Your task to perform on an android device: Open settings Image 0: 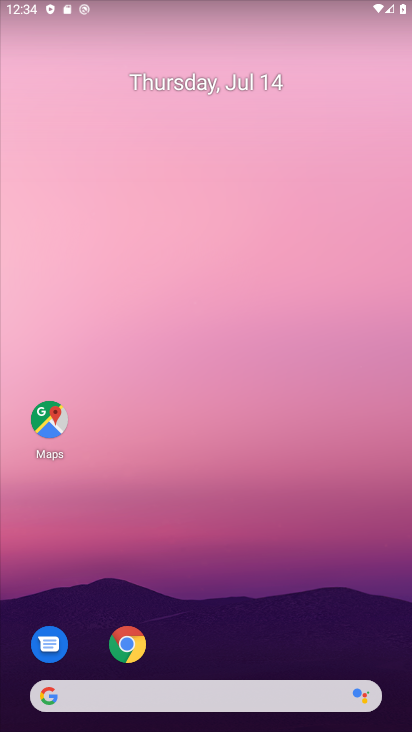
Step 0: drag from (238, 260) to (212, 14)
Your task to perform on an android device: Open settings Image 1: 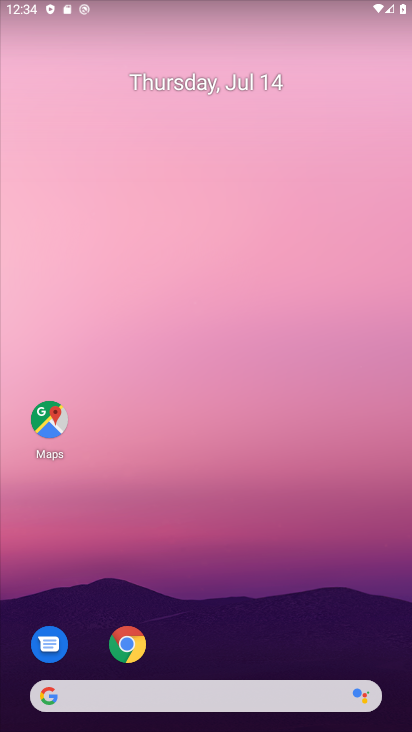
Step 1: drag from (351, 534) to (256, 194)
Your task to perform on an android device: Open settings Image 2: 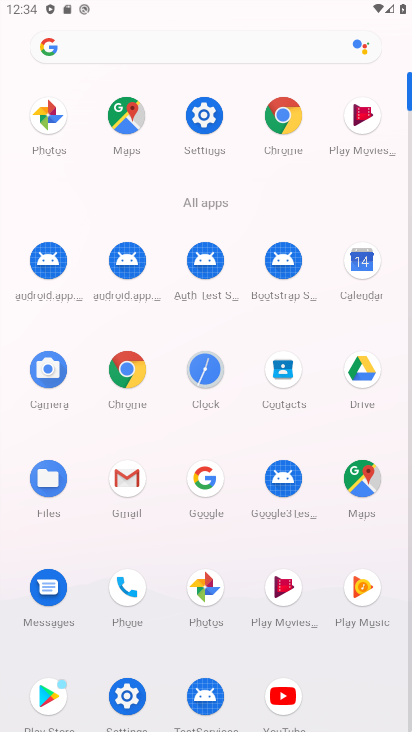
Step 2: click (214, 122)
Your task to perform on an android device: Open settings Image 3: 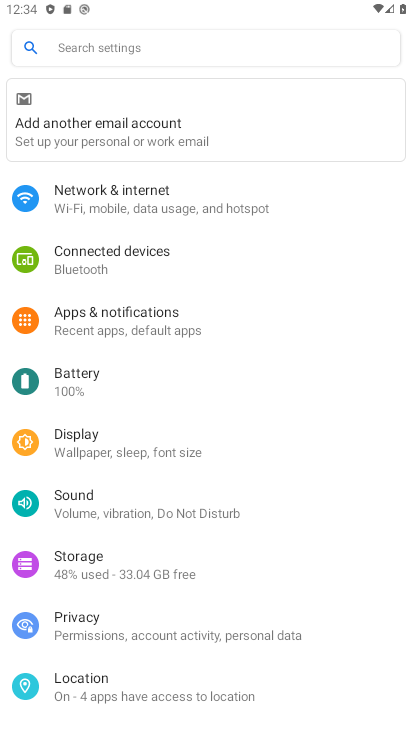
Step 3: task complete